Your task to perform on an android device: allow cookies in the chrome app Image 0: 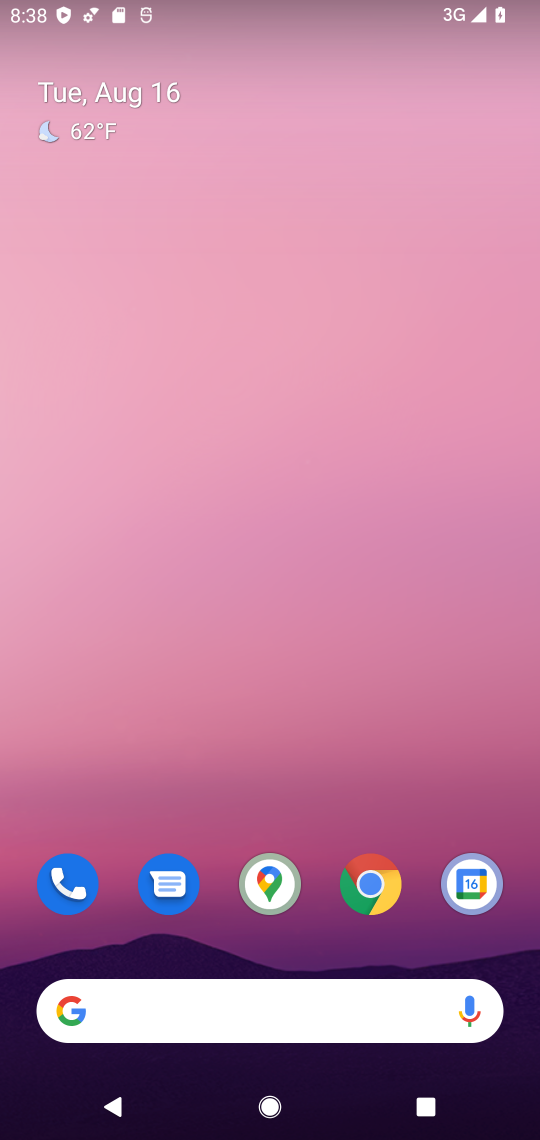
Step 0: click (367, 885)
Your task to perform on an android device: allow cookies in the chrome app Image 1: 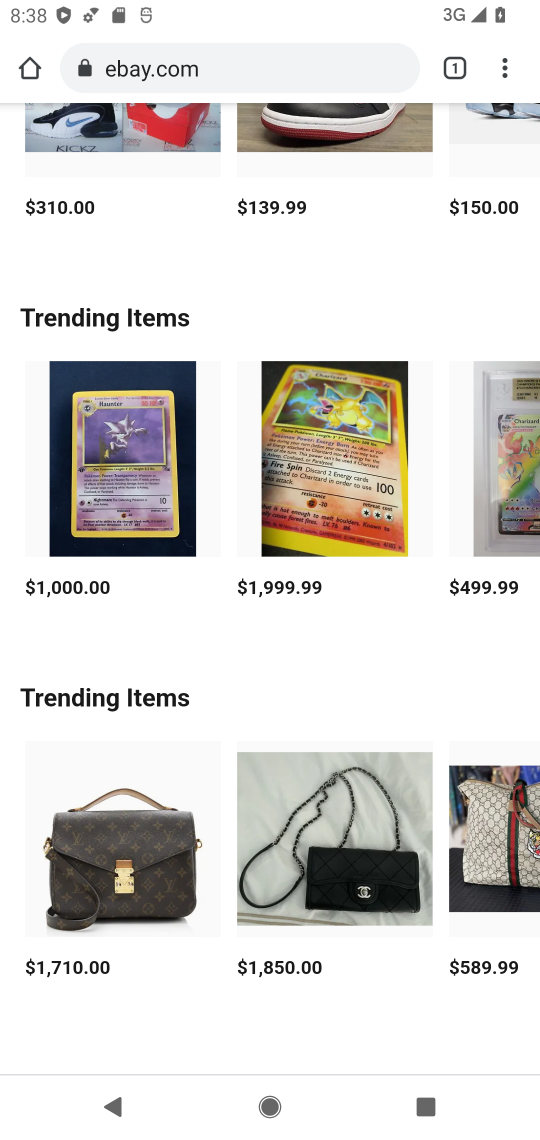
Step 1: click (497, 74)
Your task to perform on an android device: allow cookies in the chrome app Image 2: 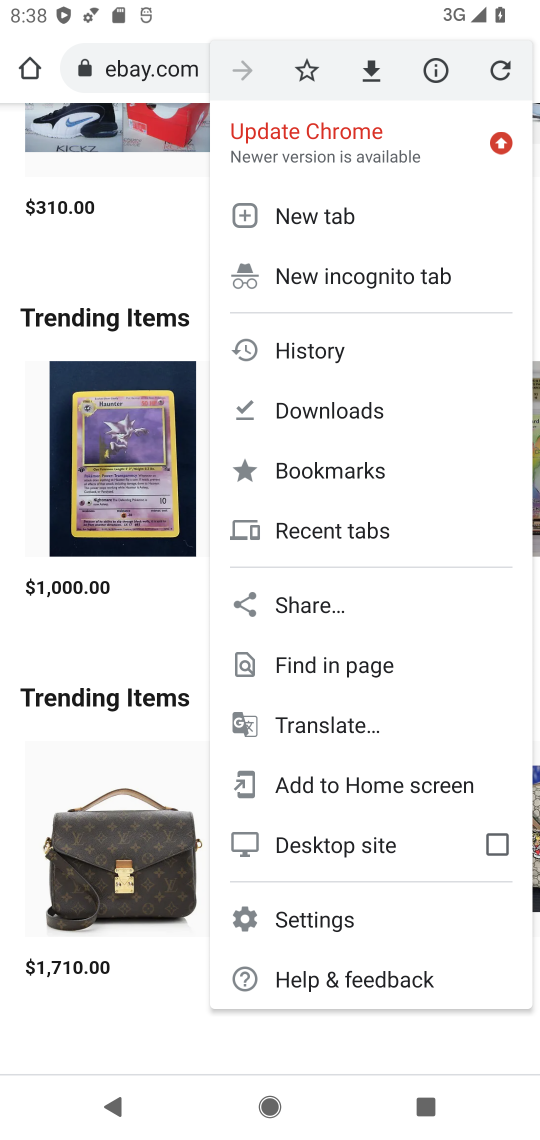
Step 2: click (326, 916)
Your task to perform on an android device: allow cookies in the chrome app Image 3: 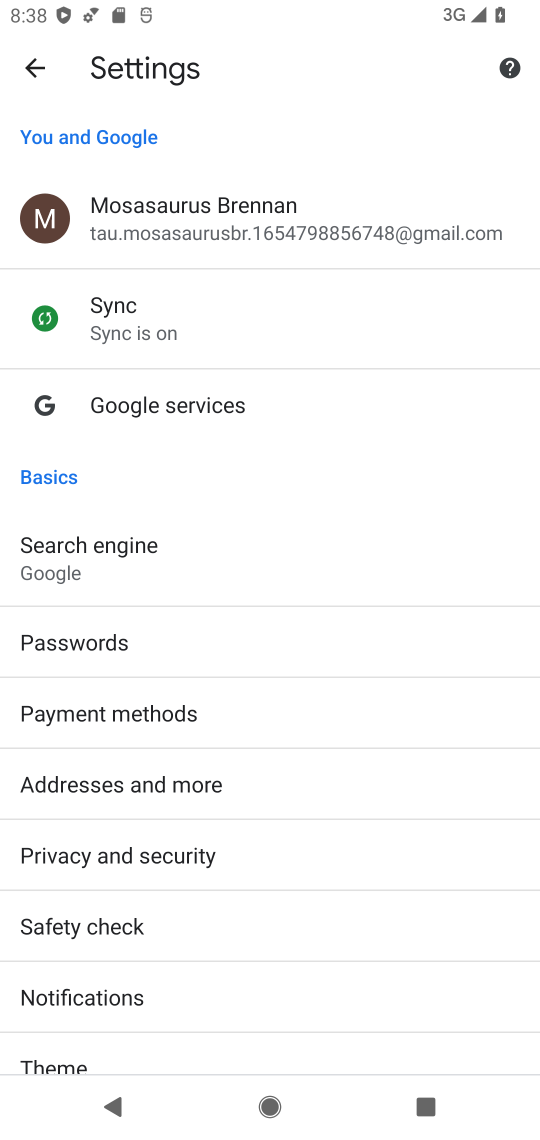
Step 3: drag from (331, 988) to (350, 578)
Your task to perform on an android device: allow cookies in the chrome app Image 4: 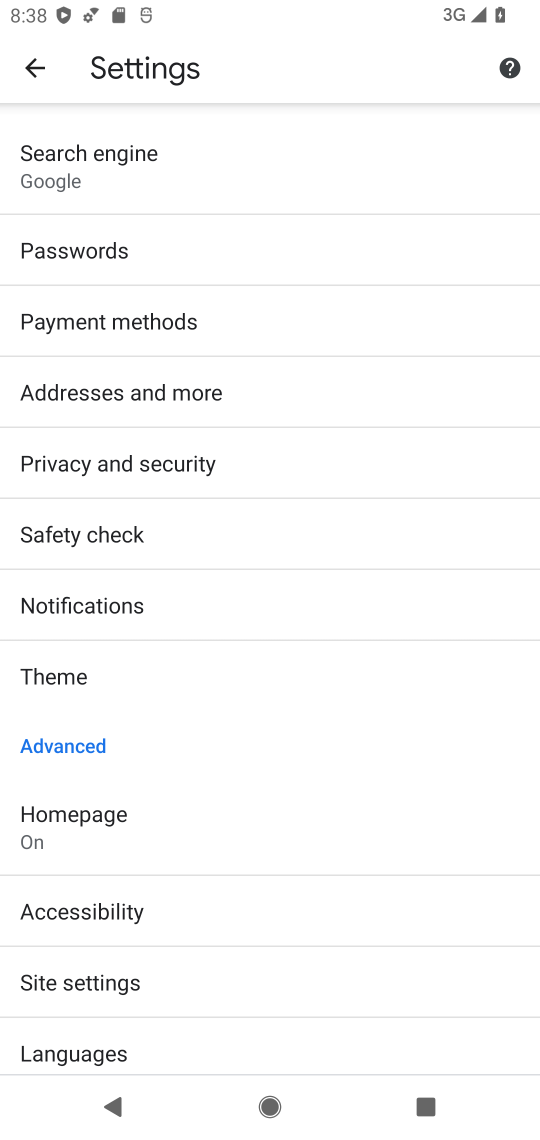
Step 4: drag from (343, 998) to (345, 492)
Your task to perform on an android device: allow cookies in the chrome app Image 5: 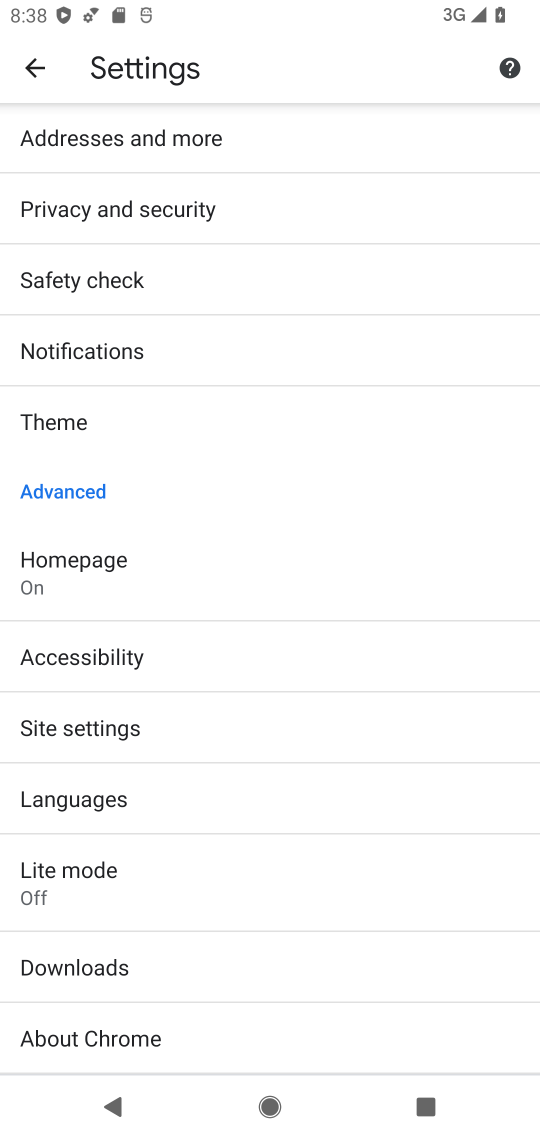
Step 5: click (82, 737)
Your task to perform on an android device: allow cookies in the chrome app Image 6: 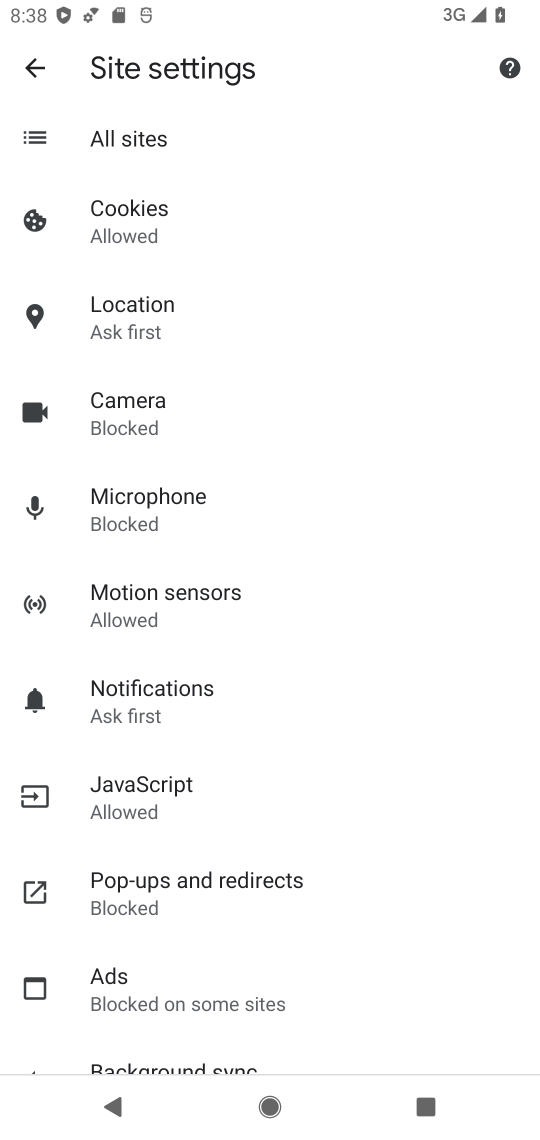
Step 6: click (112, 211)
Your task to perform on an android device: allow cookies in the chrome app Image 7: 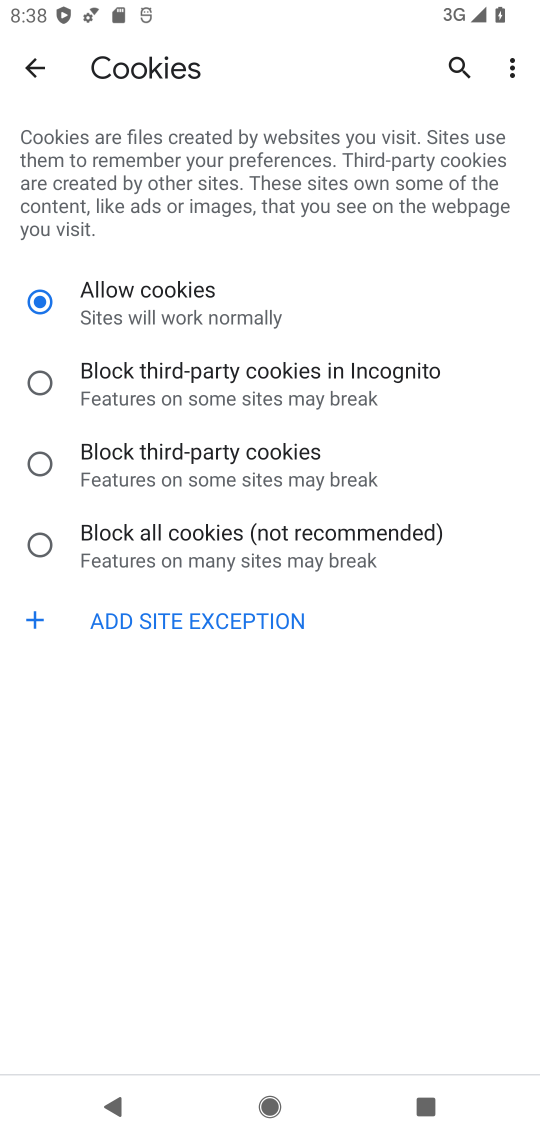
Step 7: task complete